Your task to perform on an android device: Open calendar and show me the first week of next month Image 0: 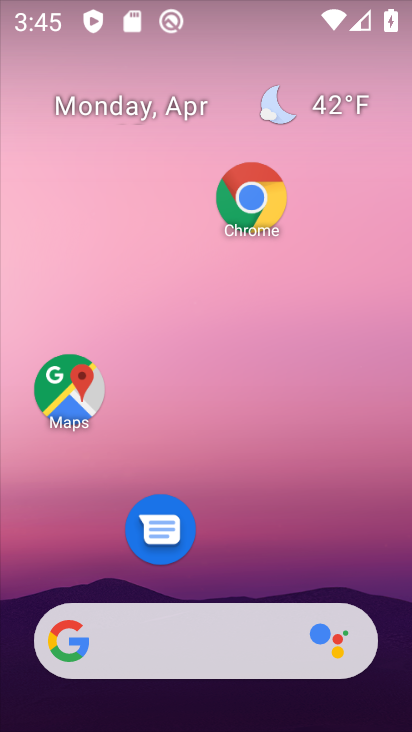
Step 0: drag from (234, 570) to (235, 282)
Your task to perform on an android device: Open calendar and show me the first week of next month Image 1: 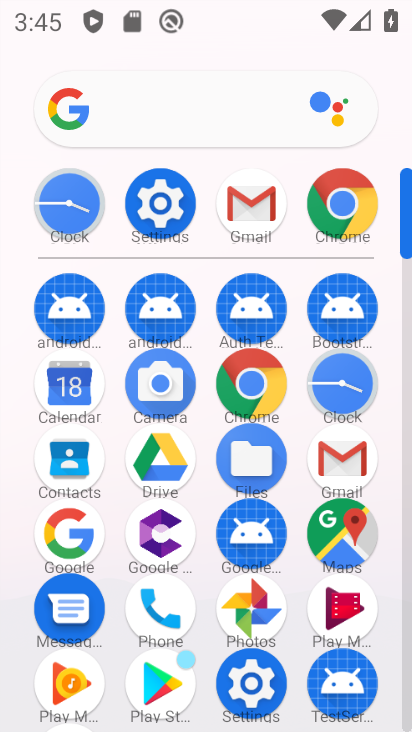
Step 1: click (68, 404)
Your task to perform on an android device: Open calendar and show me the first week of next month Image 2: 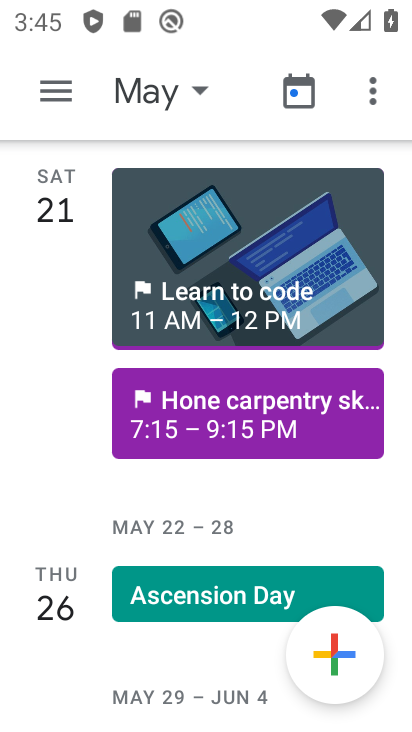
Step 2: click (176, 83)
Your task to perform on an android device: Open calendar and show me the first week of next month Image 3: 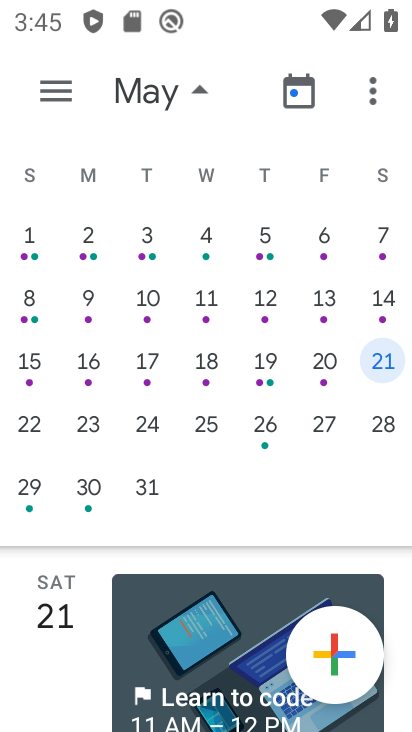
Step 3: click (104, 235)
Your task to perform on an android device: Open calendar and show me the first week of next month Image 4: 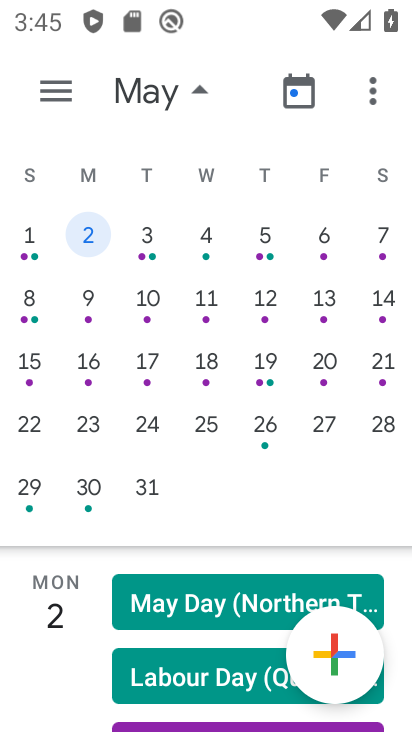
Step 4: task complete